Your task to perform on an android device: Open settings Image 0: 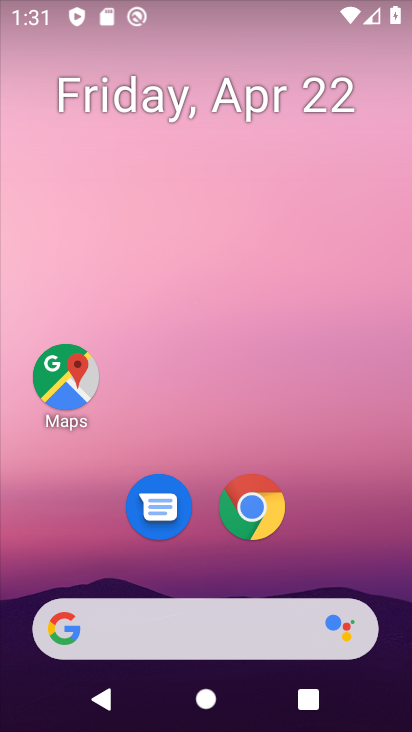
Step 0: drag from (166, 626) to (255, 141)
Your task to perform on an android device: Open settings Image 1: 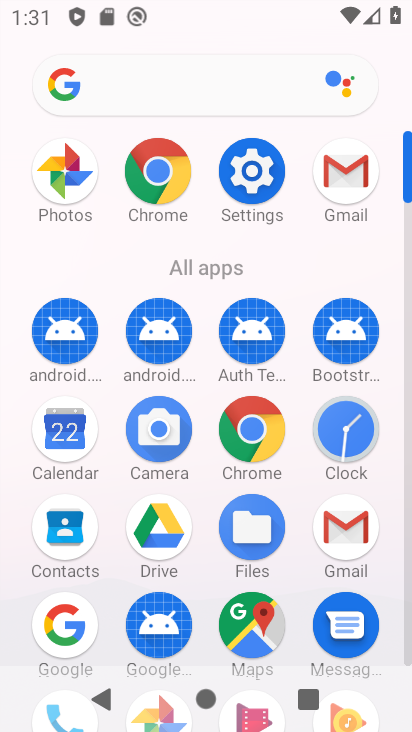
Step 1: click (248, 182)
Your task to perform on an android device: Open settings Image 2: 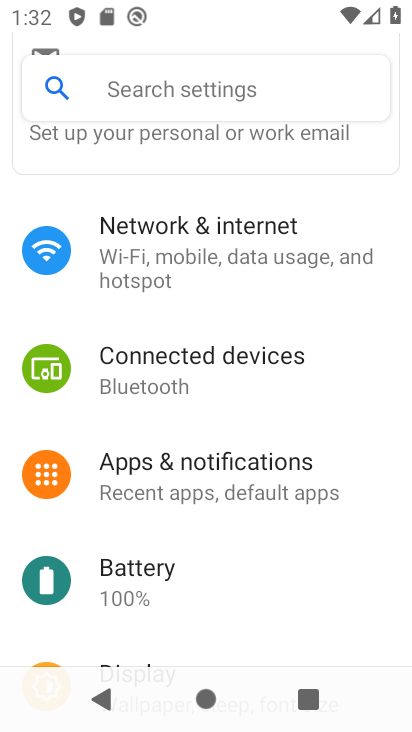
Step 2: task complete